Your task to perform on an android device: toggle pop-ups in chrome Image 0: 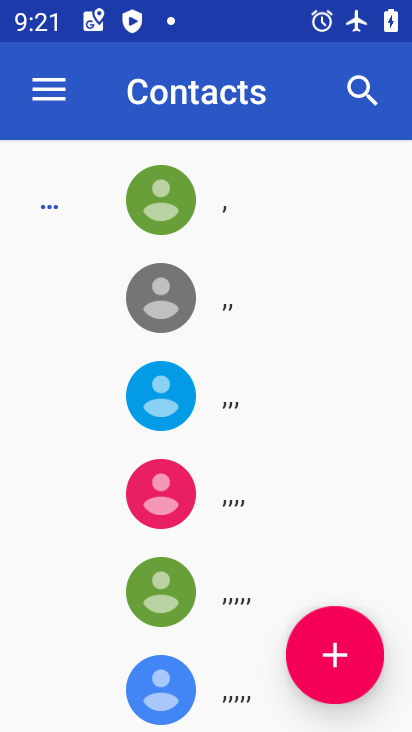
Step 0: press home button
Your task to perform on an android device: toggle pop-ups in chrome Image 1: 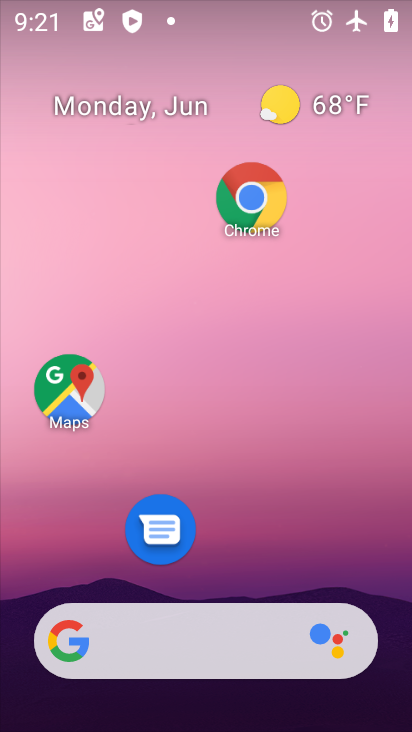
Step 1: click (260, 212)
Your task to perform on an android device: toggle pop-ups in chrome Image 2: 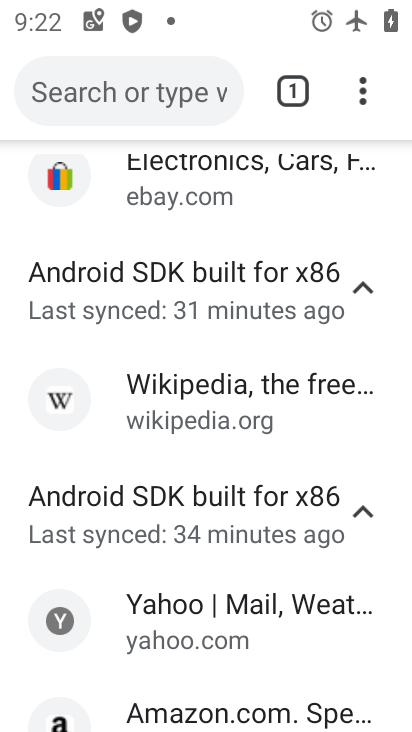
Step 2: drag from (362, 96) to (86, 541)
Your task to perform on an android device: toggle pop-ups in chrome Image 3: 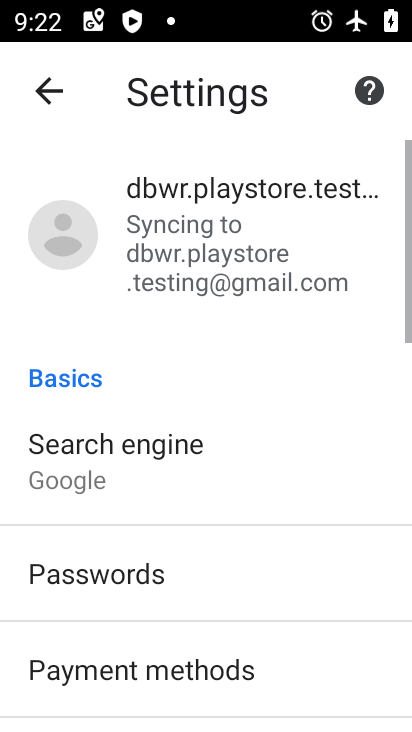
Step 3: click (235, 289)
Your task to perform on an android device: toggle pop-ups in chrome Image 4: 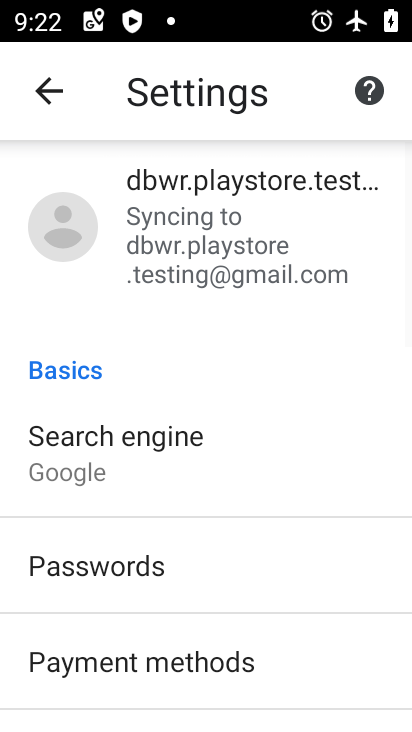
Step 4: drag from (134, 588) to (197, 280)
Your task to perform on an android device: toggle pop-ups in chrome Image 5: 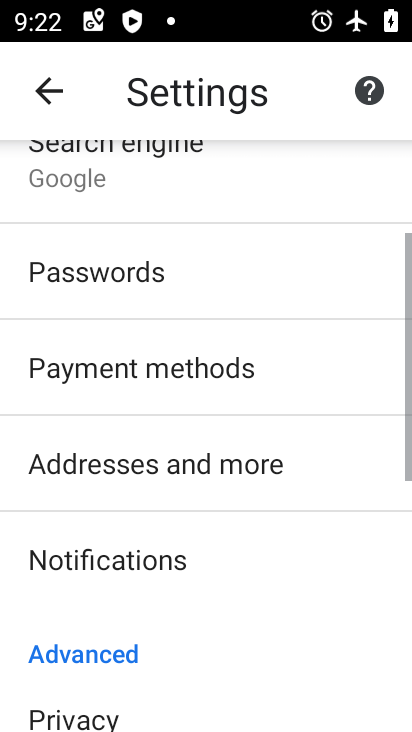
Step 5: drag from (214, 553) to (224, 299)
Your task to perform on an android device: toggle pop-ups in chrome Image 6: 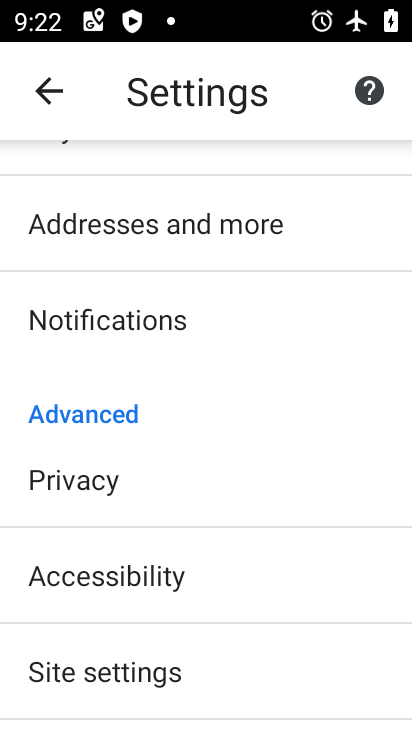
Step 6: click (167, 657)
Your task to perform on an android device: toggle pop-ups in chrome Image 7: 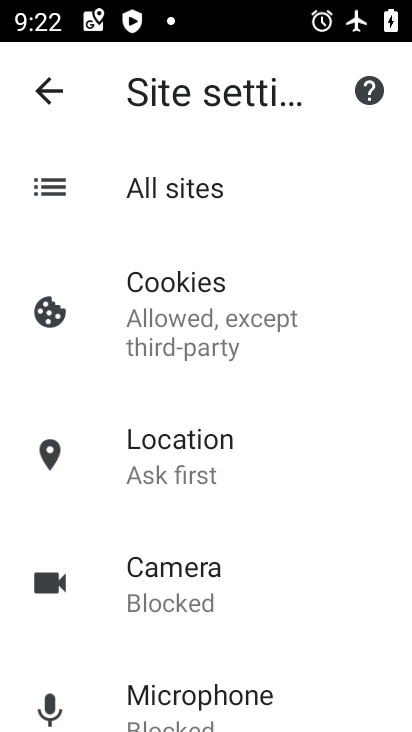
Step 7: drag from (251, 484) to (287, 320)
Your task to perform on an android device: toggle pop-ups in chrome Image 8: 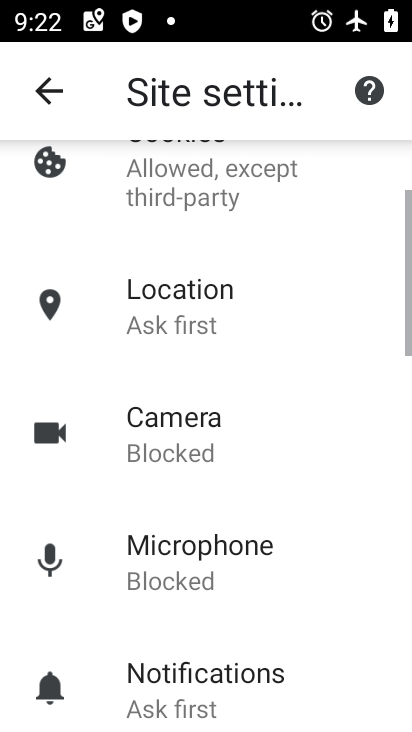
Step 8: drag from (227, 670) to (246, 367)
Your task to perform on an android device: toggle pop-ups in chrome Image 9: 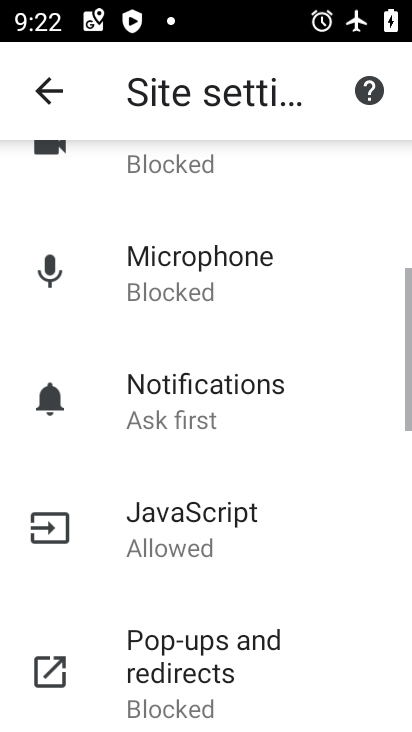
Step 9: drag from (223, 617) to (239, 305)
Your task to perform on an android device: toggle pop-ups in chrome Image 10: 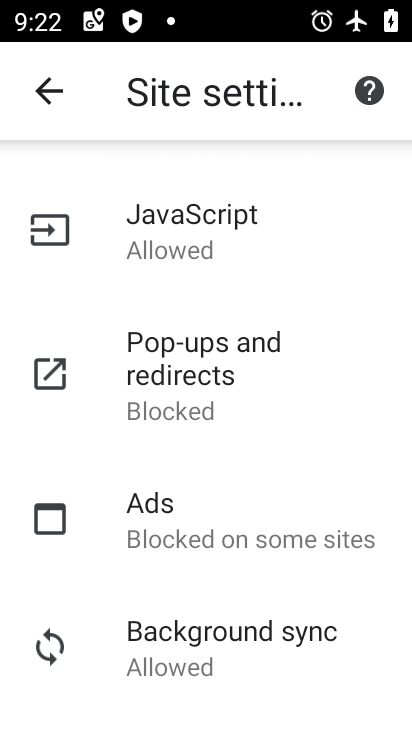
Step 10: click (219, 403)
Your task to perform on an android device: toggle pop-ups in chrome Image 11: 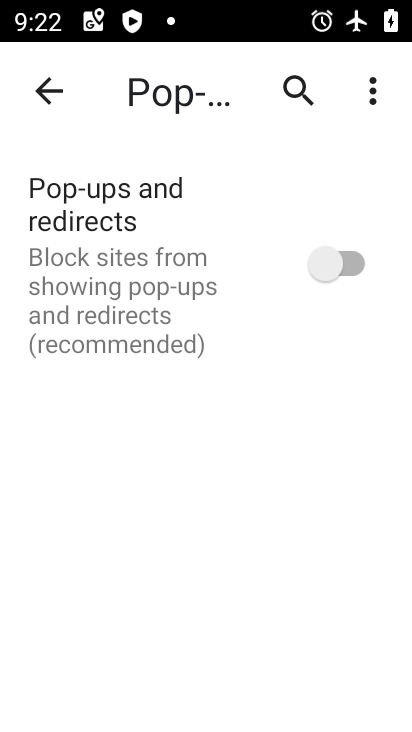
Step 11: click (340, 267)
Your task to perform on an android device: toggle pop-ups in chrome Image 12: 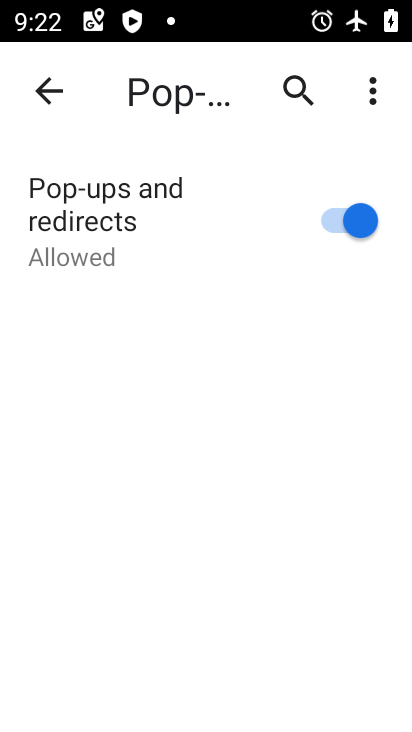
Step 12: task complete